Your task to perform on an android device: add a label to a message in the gmail app Image 0: 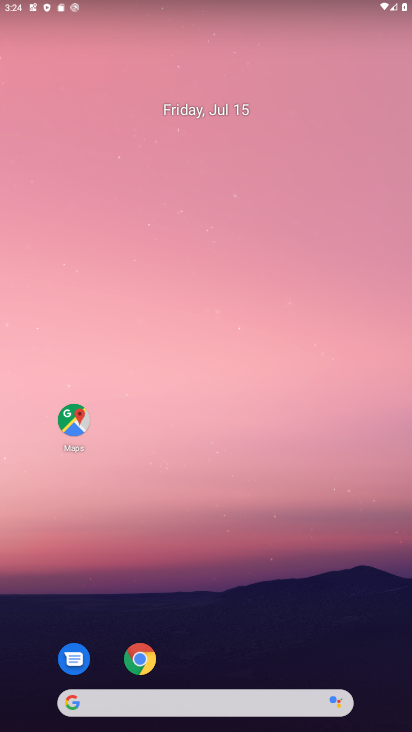
Step 0: press home button
Your task to perform on an android device: add a label to a message in the gmail app Image 1: 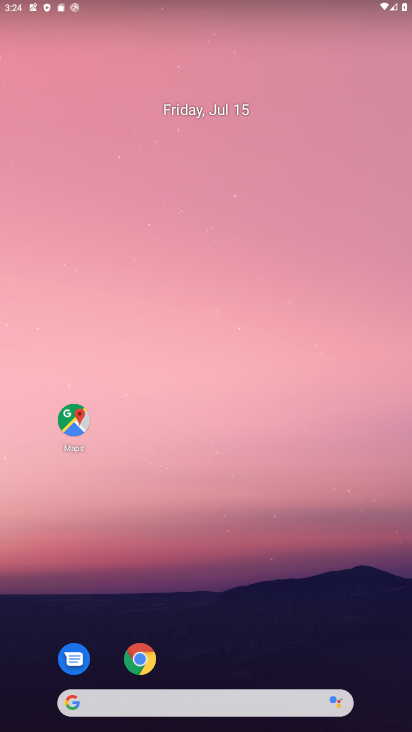
Step 1: drag from (161, 639) to (210, 218)
Your task to perform on an android device: add a label to a message in the gmail app Image 2: 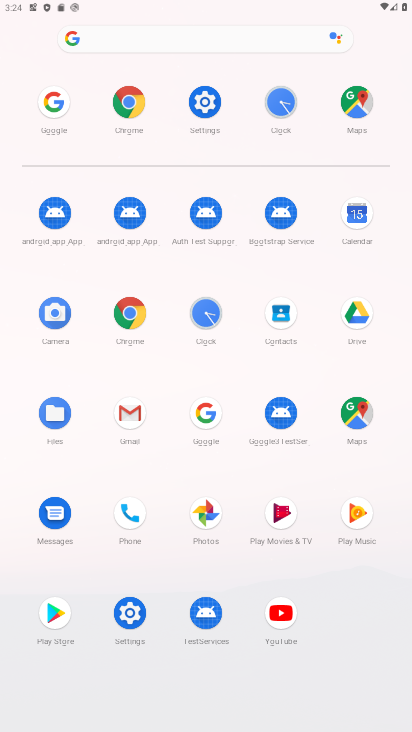
Step 2: click (134, 414)
Your task to perform on an android device: add a label to a message in the gmail app Image 3: 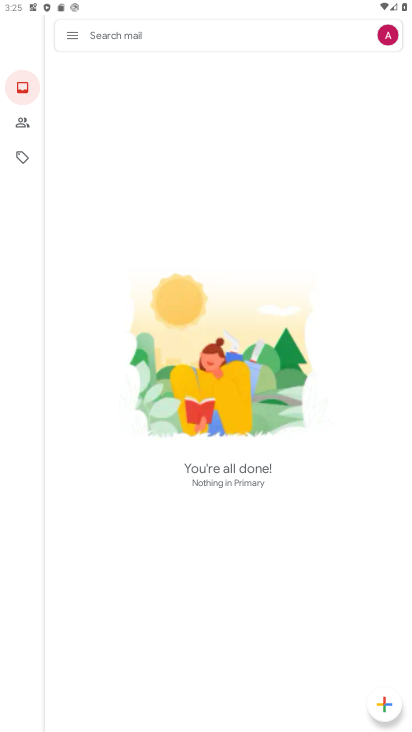
Step 3: task complete